Your task to perform on an android device: What's the weather today? Image 0: 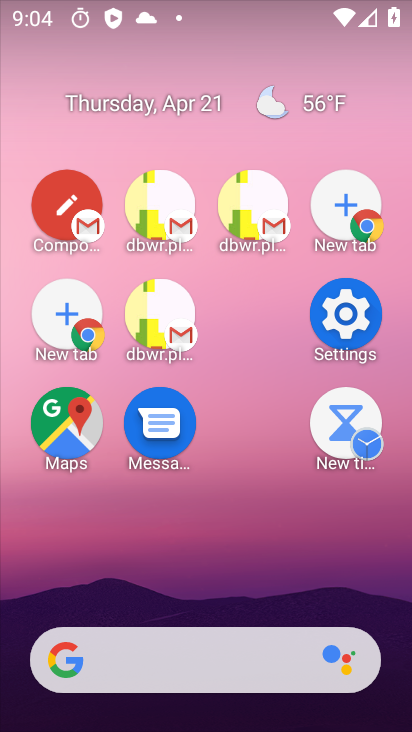
Step 0: drag from (16, 136) to (358, 307)
Your task to perform on an android device: What's the weather today? Image 1: 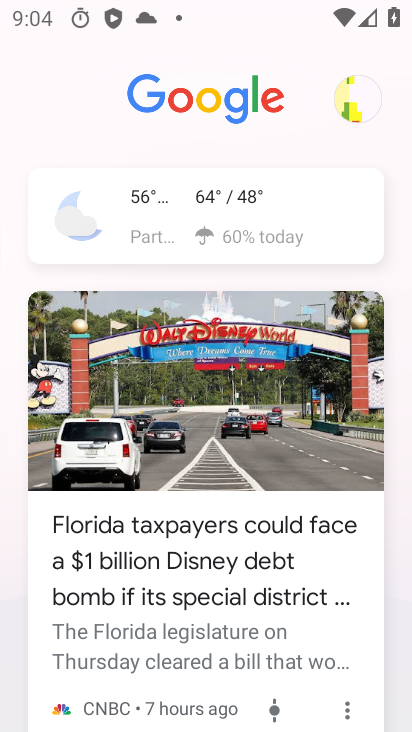
Step 1: click (165, 205)
Your task to perform on an android device: What's the weather today? Image 2: 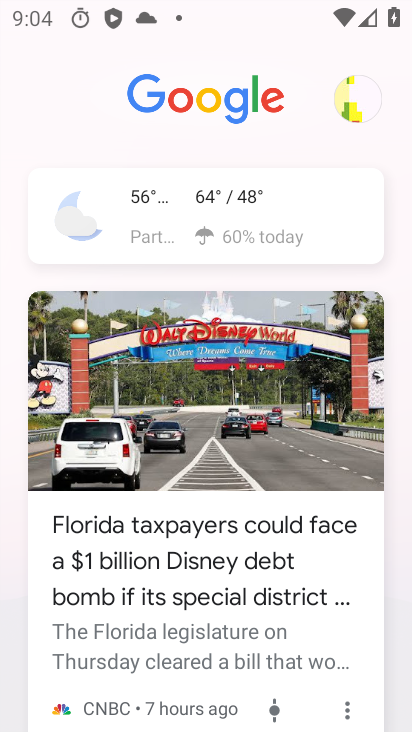
Step 2: click (172, 210)
Your task to perform on an android device: What's the weather today? Image 3: 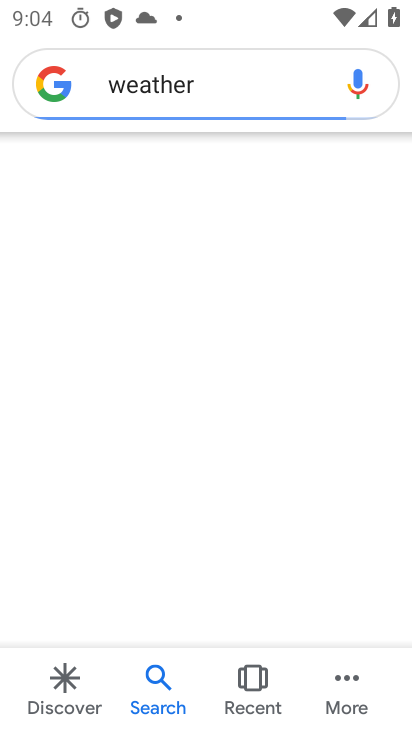
Step 3: task complete